Your task to perform on an android device: turn on bluetooth scan Image 0: 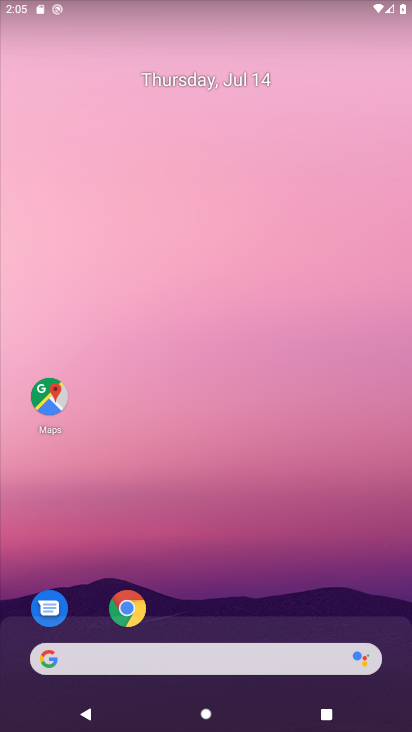
Step 0: drag from (174, 621) to (304, 194)
Your task to perform on an android device: turn on bluetooth scan Image 1: 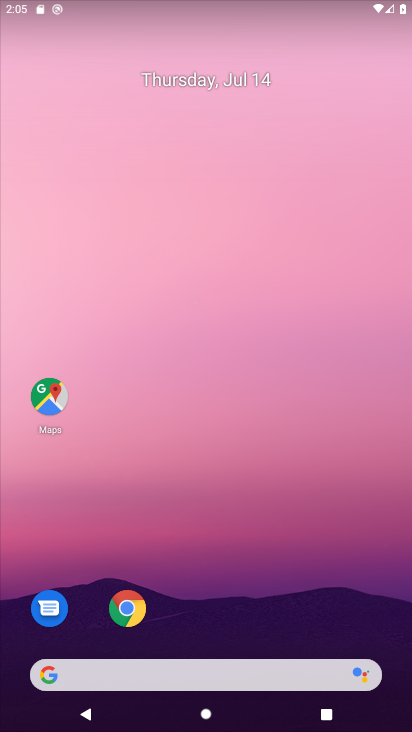
Step 1: drag from (249, 585) to (339, 214)
Your task to perform on an android device: turn on bluetooth scan Image 2: 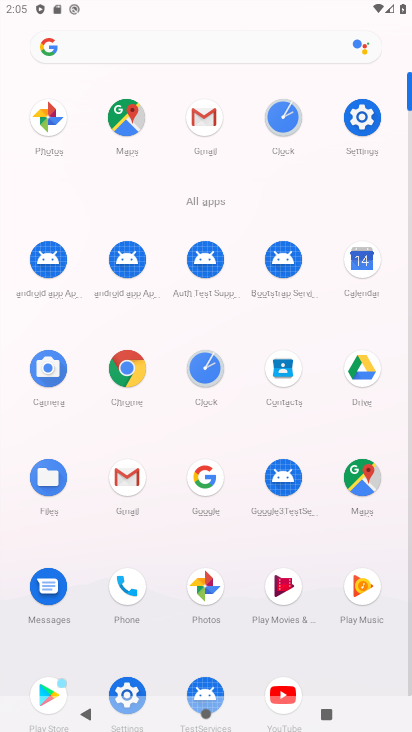
Step 2: click (361, 116)
Your task to perform on an android device: turn on bluetooth scan Image 3: 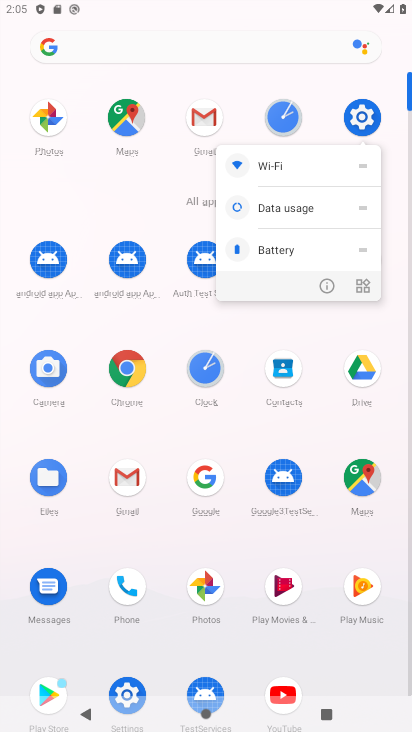
Step 3: click (334, 288)
Your task to perform on an android device: turn on bluetooth scan Image 4: 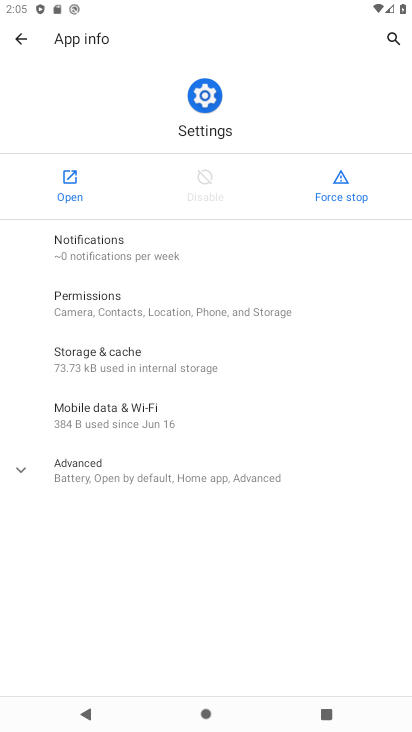
Step 4: click (82, 201)
Your task to perform on an android device: turn on bluetooth scan Image 5: 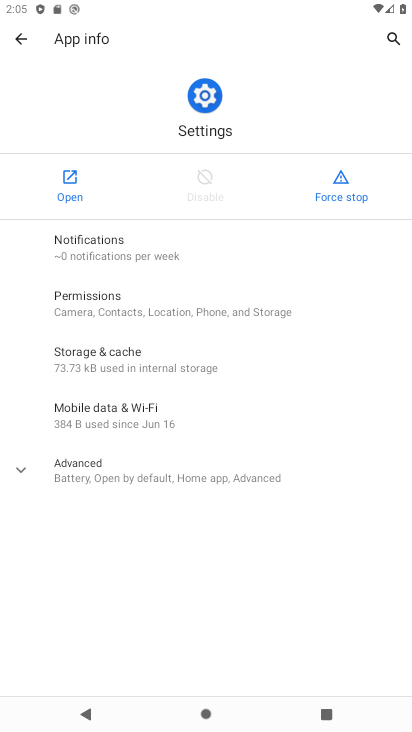
Step 5: click (82, 201)
Your task to perform on an android device: turn on bluetooth scan Image 6: 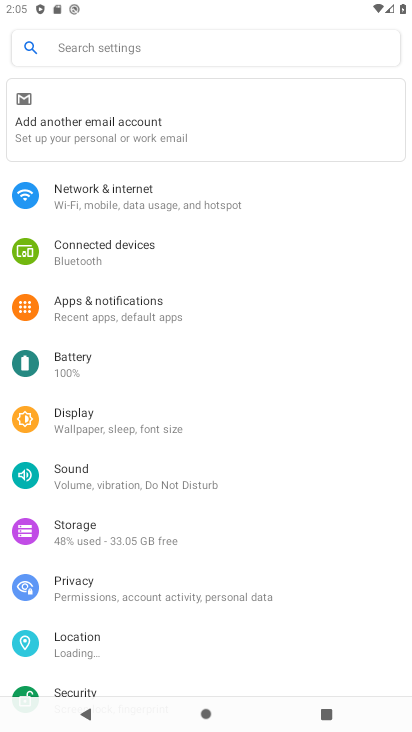
Step 6: click (122, 637)
Your task to perform on an android device: turn on bluetooth scan Image 7: 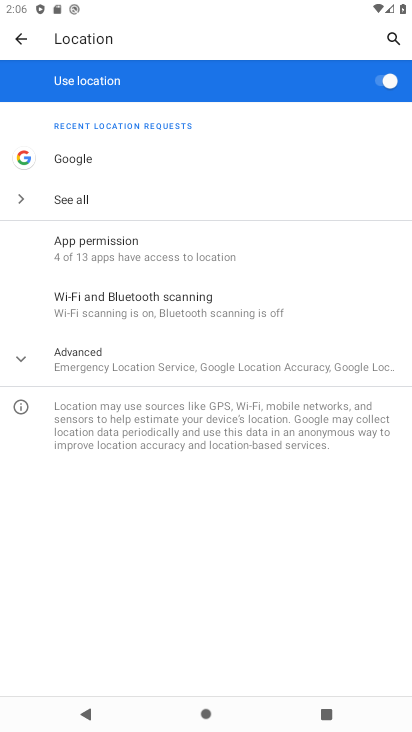
Step 7: drag from (270, 439) to (291, 339)
Your task to perform on an android device: turn on bluetooth scan Image 8: 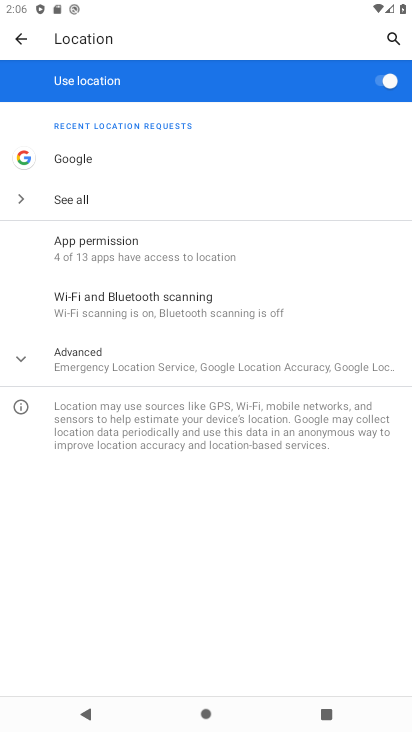
Step 8: drag from (71, 584) to (160, 382)
Your task to perform on an android device: turn on bluetooth scan Image 9: 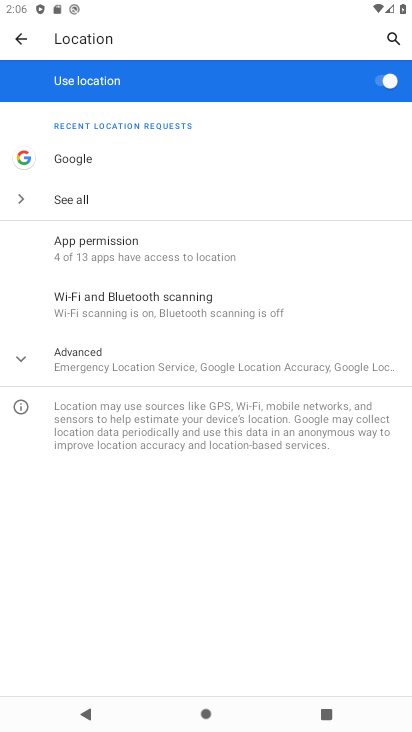
Step 9: drag from (123, 363) to (262, 179)
Your task to perform on an android device: turn on bluetooth scan Image 10: 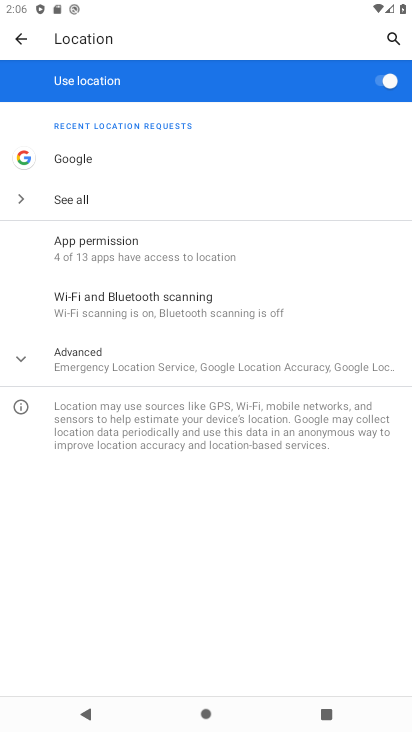
Step 10: click (180, 305)
Your task to perform on an android device: turn on bluetooth scan Image 11: 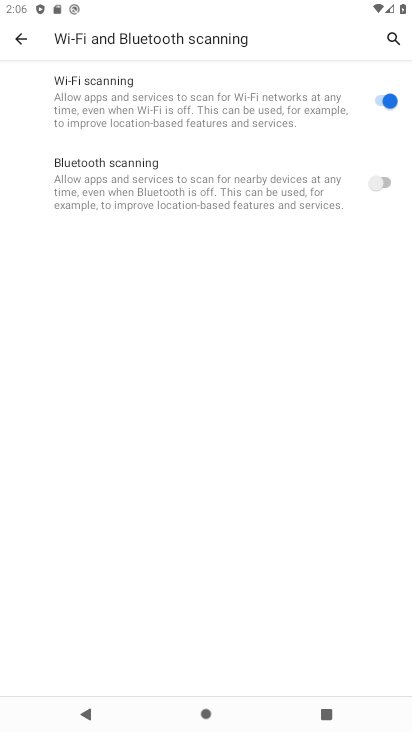
Step 11: drag from (218, 600) to (273, 307)
Your task to perform on an android device: turn on bluetooth scan Image 12: 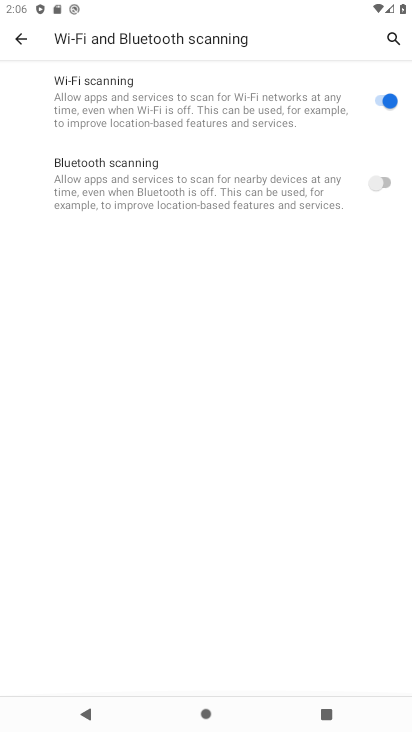
Step 12: click (263, 197)
Your task to perform on an android device: turn on bluetooth scan Image 13: 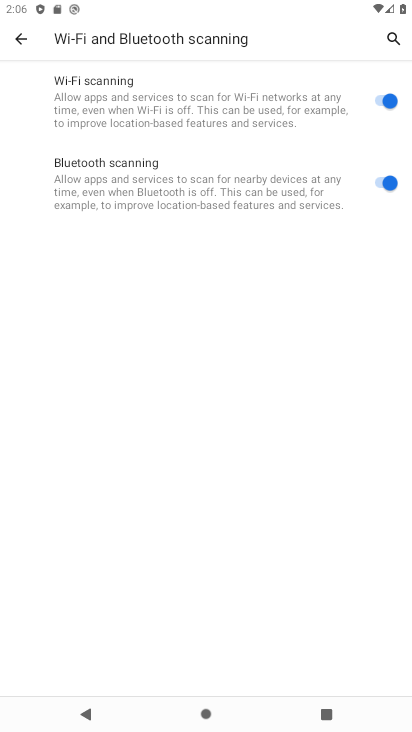
Step 13: task complete